Your task to perform on an android device: visit the assistant section in the google photos Image 0: 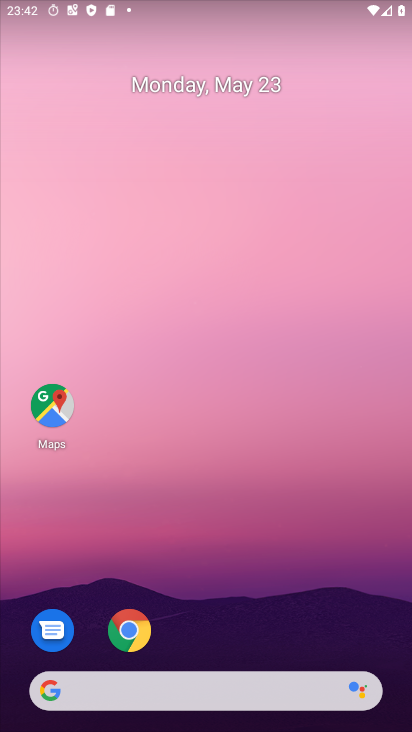
Step 0: drag from (255, 630) to (231, 0)
Your task to perform on an android device: visit the assistant section in the google photos Image 1: 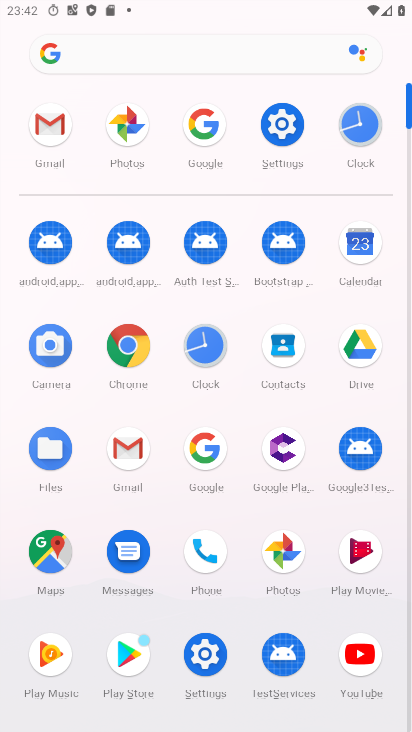
Step 1: click (132, 130)
Your task to perform on an android device: visit the assistant section in the google photos Image 2: 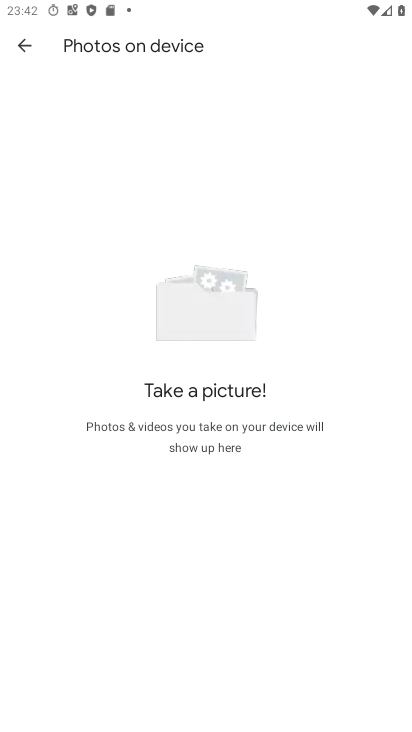
Step 2: click (22, 44)
Your task to perform on an android device: visit the assistant section in the google photos Image 3: 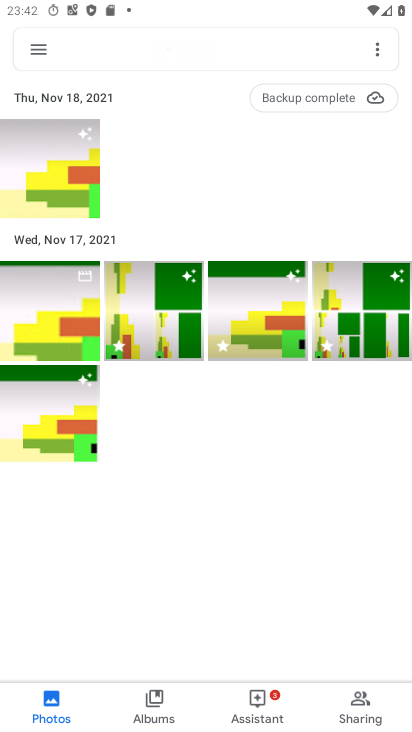
Step 3: click (255, 713)
Your task to perform on an android device: visit the assistant section in the google photos Image 4: 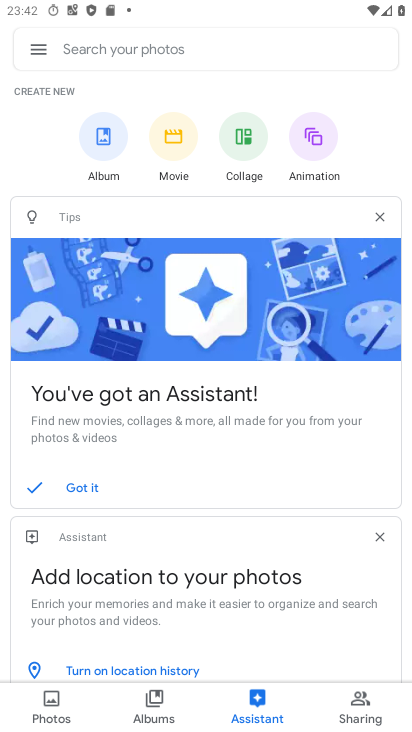
Step 4: task complete